Your task to perform on an android device: snooze an email in the gmail app Image 0: 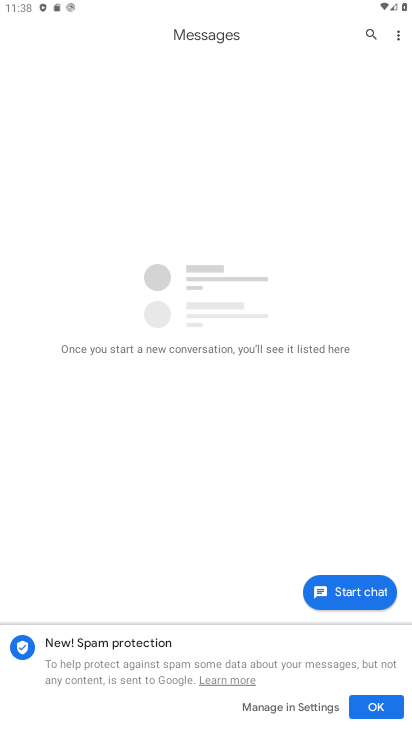
Step 0: drag from (198, 589) to (271, 84)
Your task to perform on an android device: snooze an email in the gmail app Image 1: 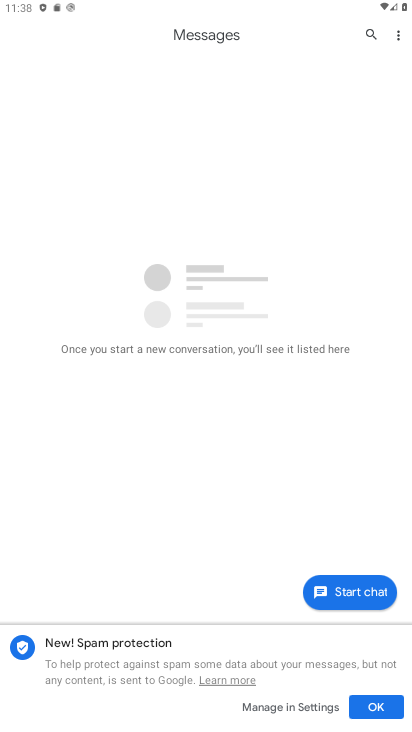
Step 1: press home button
Your task to perform on an android device: snooze an email in the gmail app Image 2: 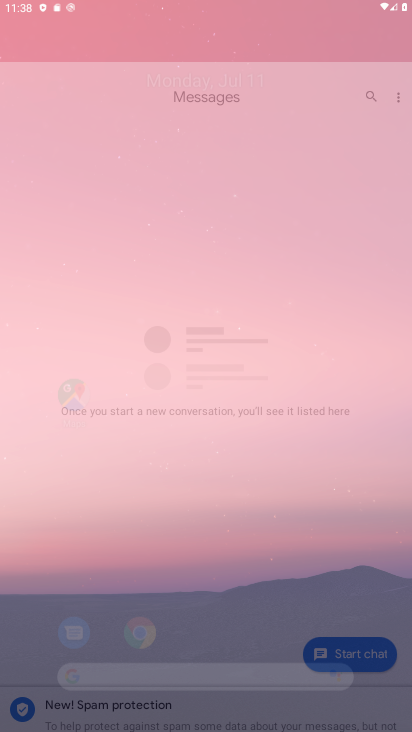
Step 2: drag from (192, 593) to (272, 127)
Your task to perform on an android device: snooze an email in the gmail app Image 3: 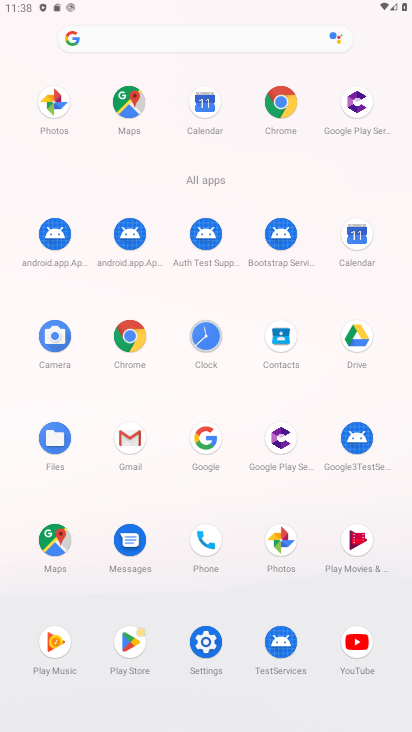
Step 3: click (134, 432)
Your task to perform on an android device: snooze an email in the gmail app Image 4: 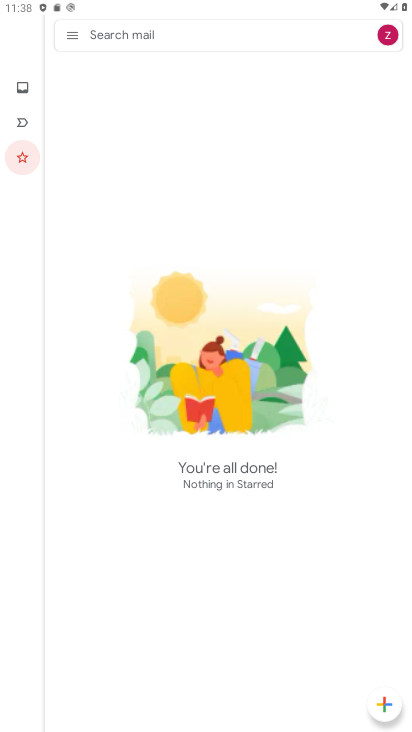
Step 4: drag from (279, 531) to (352, 247)
Your task to perform on an android device: snooze an email in the gmail app Image 5: 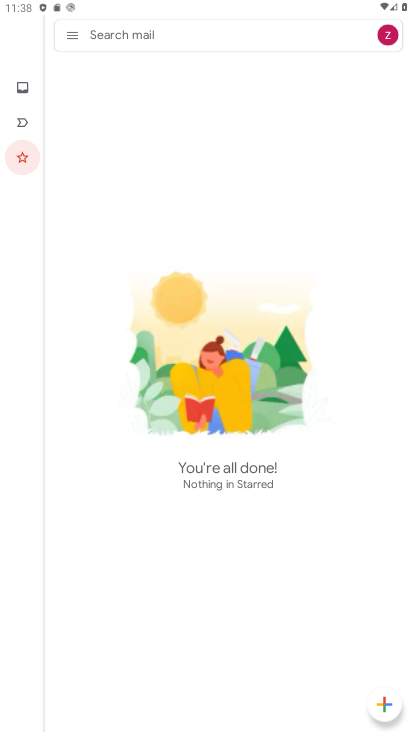
Step 5: click (72, 30)
Your task to perform on an android device: snooze an email in the gmail app Image 6: 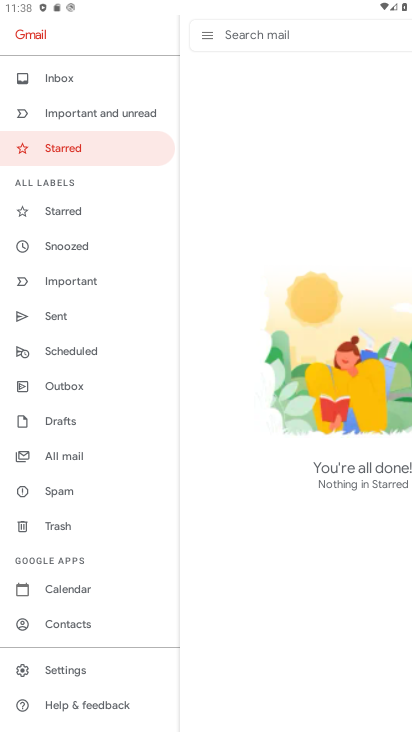
Step 6: click (310, 257)
Your task to perform on an android device: snooze an email in the gmail app Image 7: 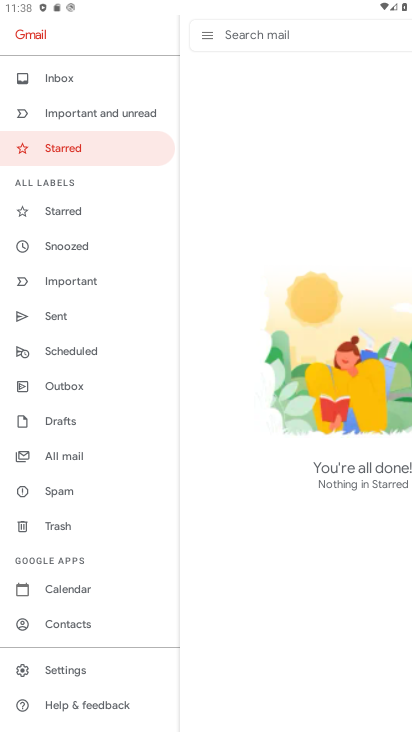
Step 7: click (204, 37)
Your task to perform on an android device: snooze an email in the gmail app Image 8: 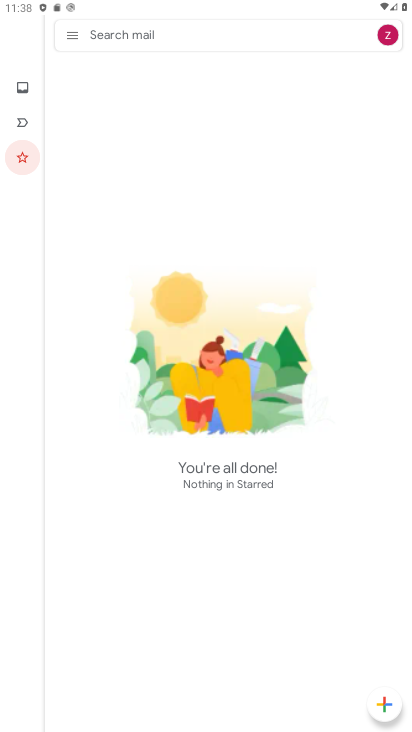
Step 8: drag from (290, 330) to (307, 277)
Your task to perform on an android device: snooze an email in the gmail app Image 9: 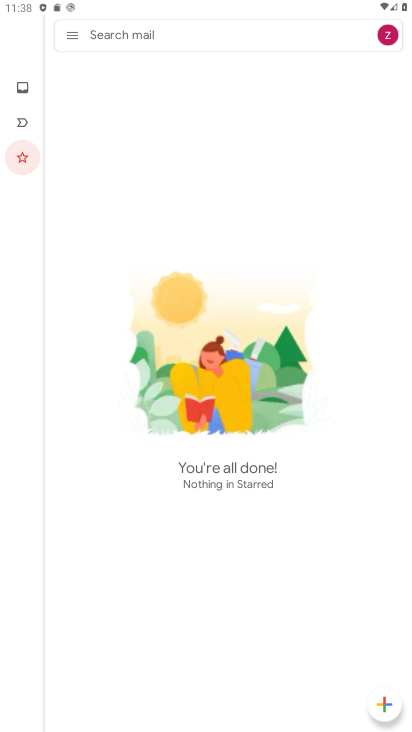
Step 9: drag from (220, 633) to (245, 407)
Your task to perform on an android device: snooze an email in the gmail app Image 10: 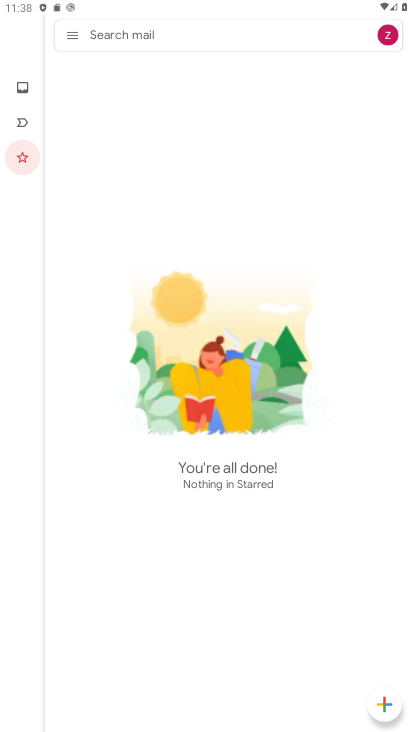
Step 10: click (328, 370)
Your task to perform on an android device: snooze an email in the gmail app Image 11: 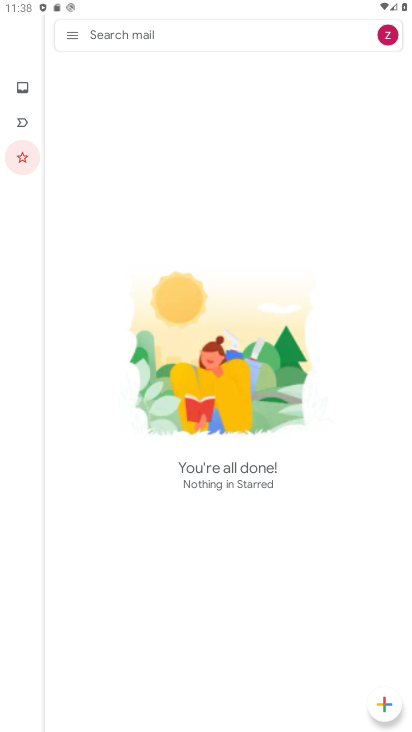
Step 11: drag from (249, 557) to (300, 230)
Your task to perform on an android device: snooze an email in the gmail app Image 12: 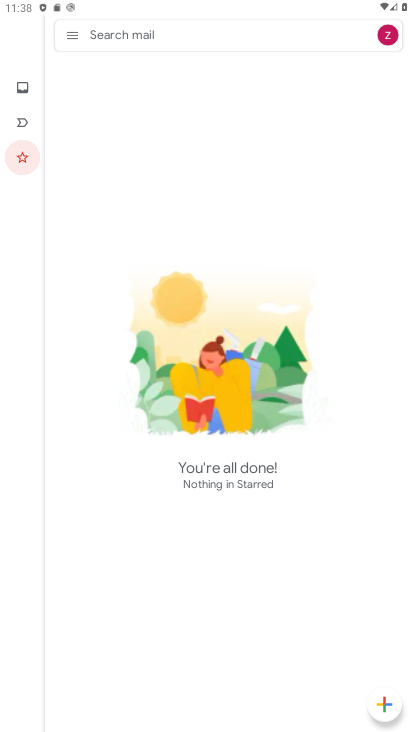
Step 12: drag from (221, 466) to (246, 256)
Your task to perform on an android device: snooze an email in the gmail app Image 13: 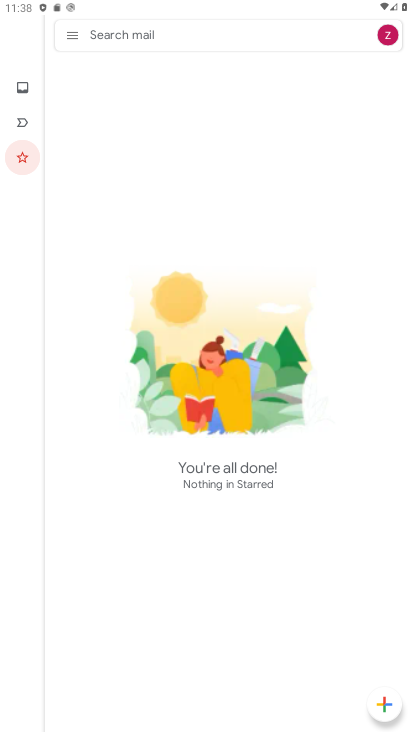
Step 13: click (184, 388)
Your task to perform on an android device: snooze an email in the gmail app Image 14: 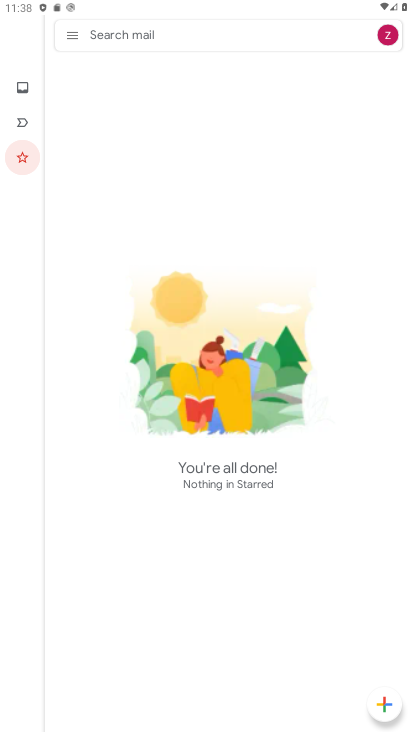
Step 14: drag from (193, 577) to (233, 270)
Your task to perform on an android device: snooze an email in the gmail app Image 15: 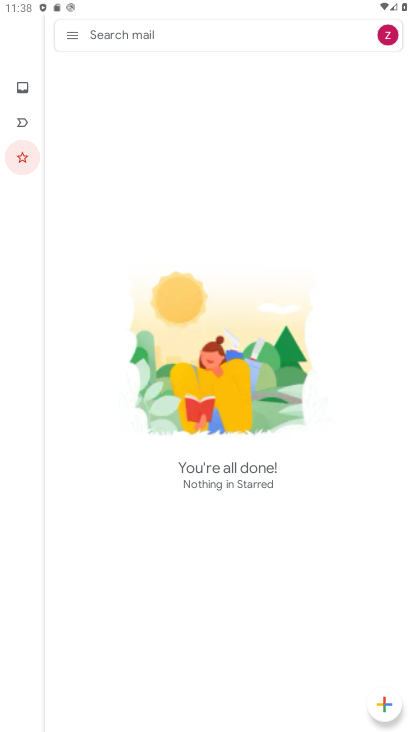
Step 15: click (233, 237)
Your task to perform on an android device: snooze an email in the gmail app Image 16: 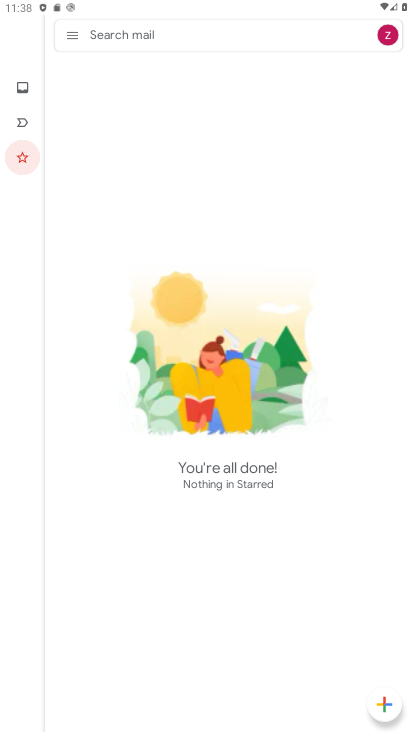
Step 16: task complete